Your task to perform on an android device: What's the weather today? Image 0: 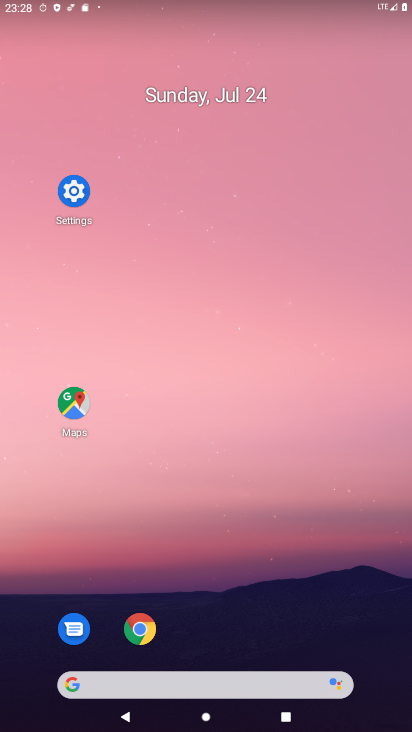
Step 0: drag from (241, 709) to (217, 37)
Your task to perform on an android device: What's the weather today? Image 1: 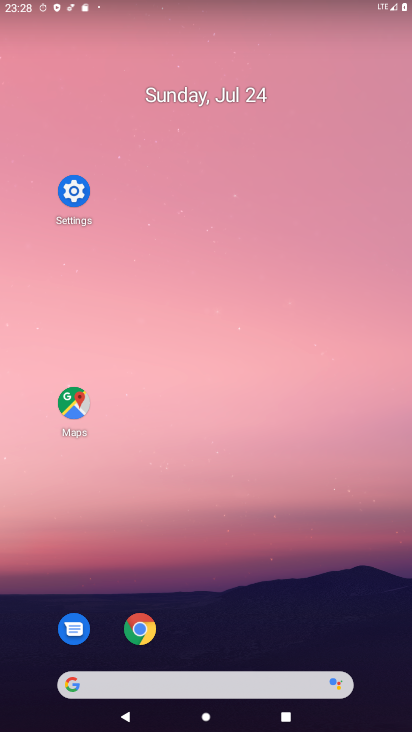
Step 1: drag from (238, 413) to (210, 165)
Your task to perform on an android device: What's the weather today? Image 2: 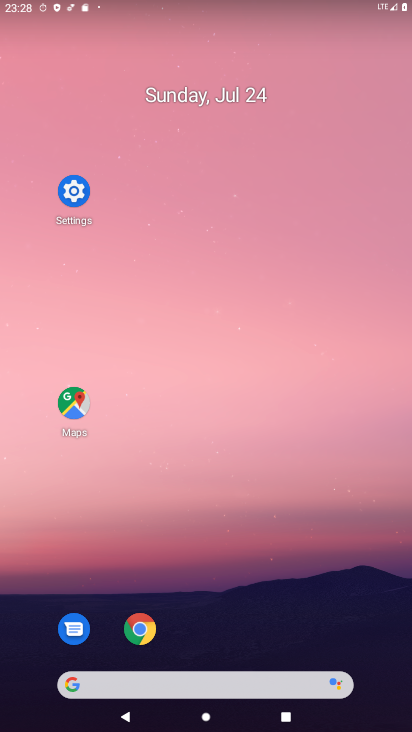
Step 2: drag from (198, 723) to (251, 195)
Your task to perform on an android device: What's the weather today? Image 3: 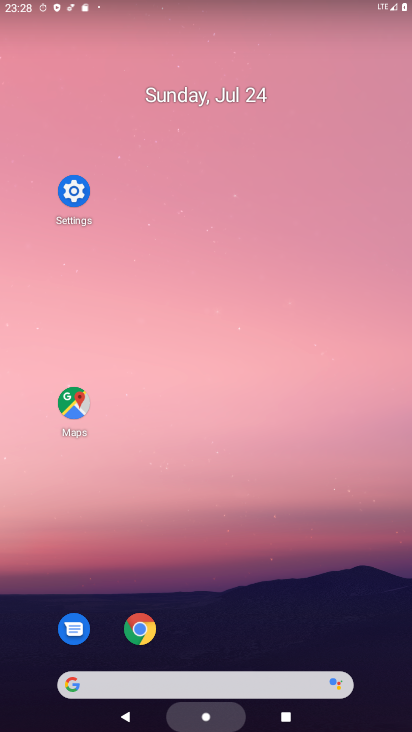
Step 3: drag from (286, 548) to (209, 58)
Your task to perform on an android device: What's the weather today? Image 4: 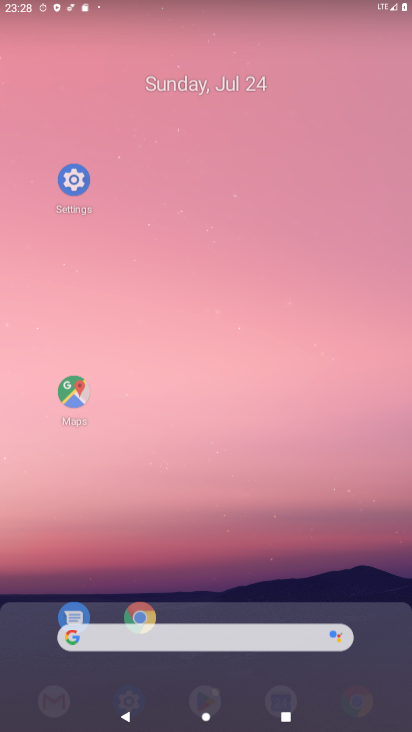
Step 4: drag from (186, 637) to (186, 14)
Your task to perform on an android device: What's the weather today? Image 5: 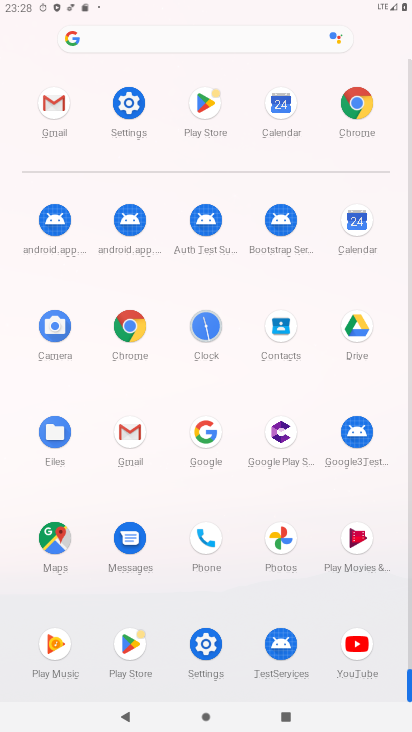
Step 5: drag from (205, 426) to (161, 109)
Your task to perform on an android device: What's the weather today? Image 6: 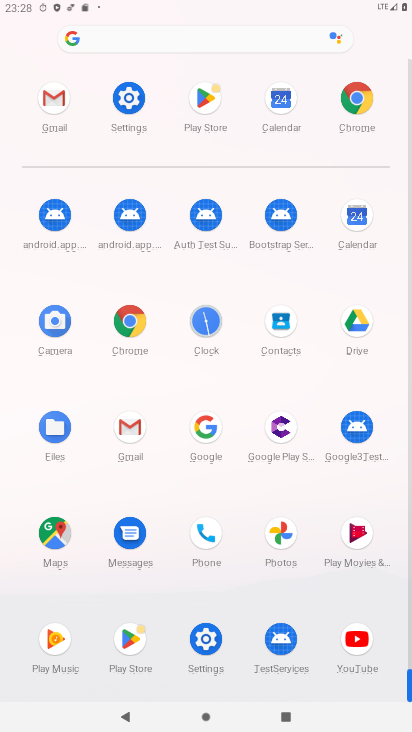
Step 6: click (371, 96)
Your task to perform on an android device: What's the weather today? Image 7: 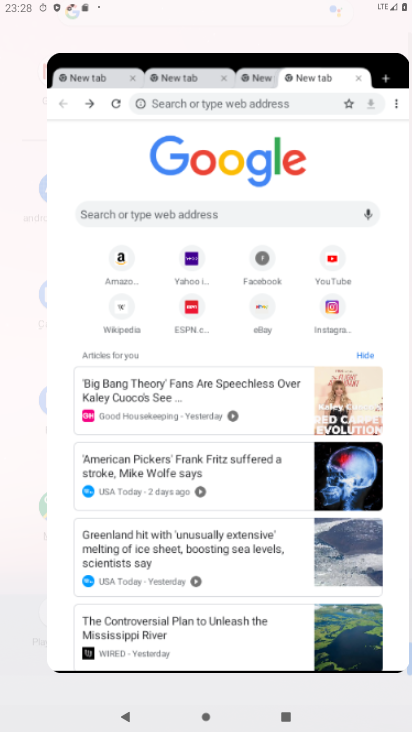
Step 7: click (367, 96)
Your task to perform on an android device: What's the weather today? Image 8: 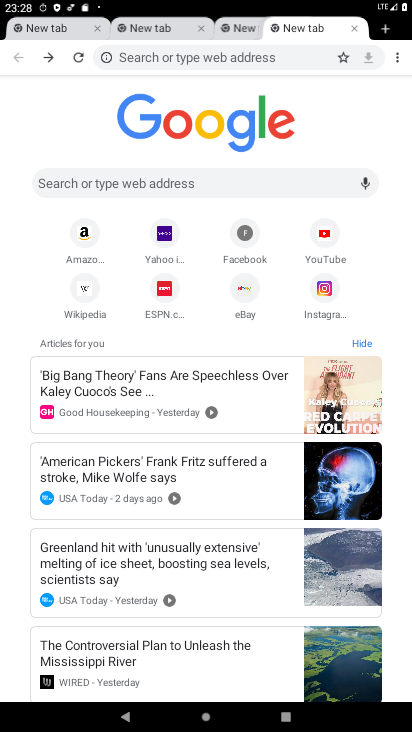
Step 8: click (68, 176)
Your task to perform on an android device: What's the weather today? Image 9: 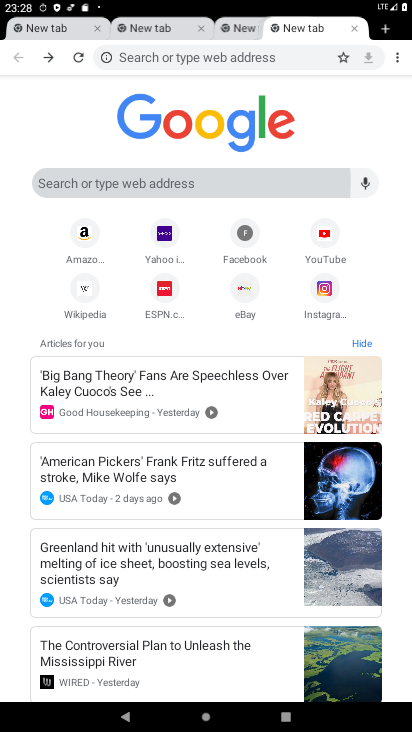
Step 9: click (68, 176)
Your task to perform on an android device: What's the weather today? Image 10: 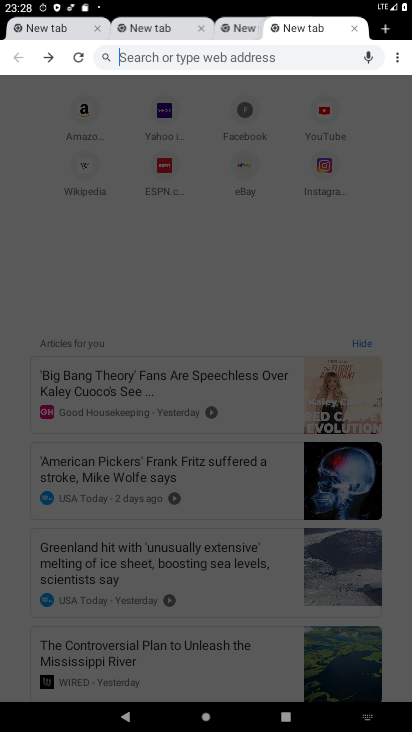
Step 10: click (69, 178)
Your task to perform on an android device: What's the weather today? Image 11: 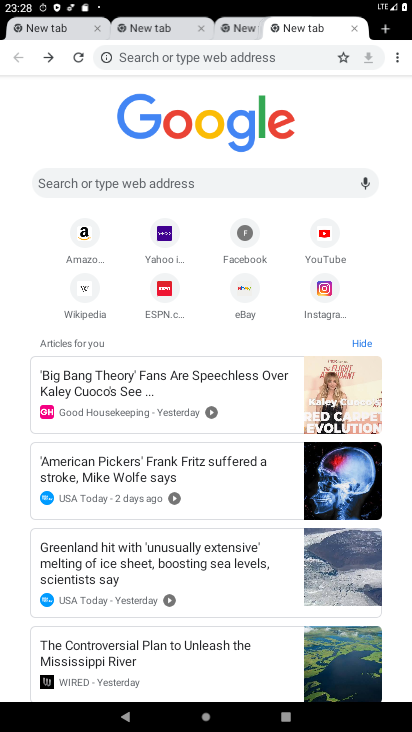
Step 11: click (129, 54)
Your task to perform on an android device: What's the weather today? Image 12: 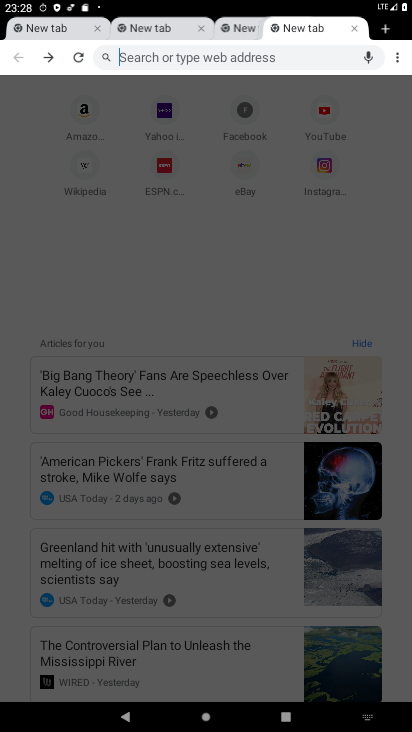
Step 12: type "what's the weather today?"
Your task to perform on an android device: What's the weather today? Image 13: 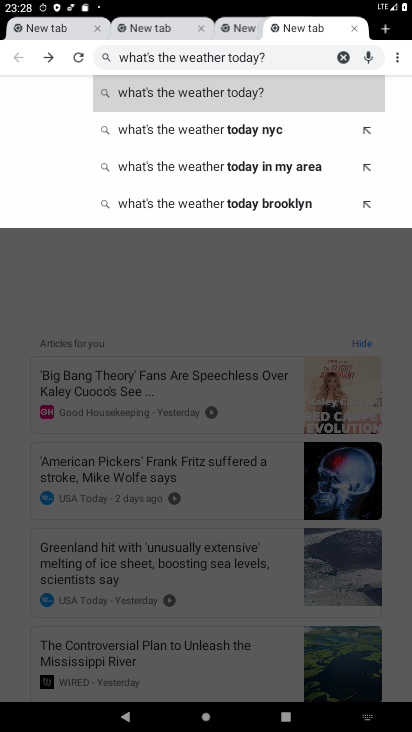
Step 13: click (227, 82)
Your task to perform on an android device: What's the weather today? Image 14: 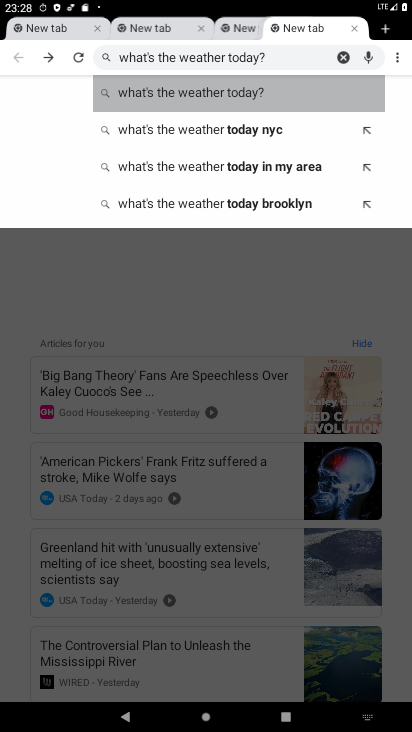
Step 14: click (223, 94)
Your task to perform on an android device: What's the weather today? Image 15: 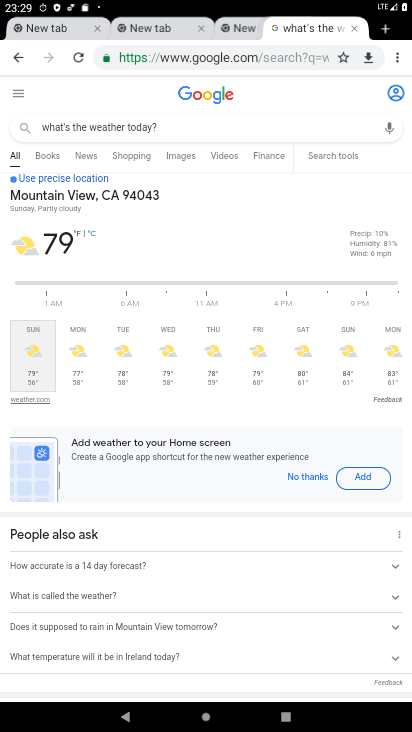
Step 15: task complete